Your task to perform on an android device: Open privacy settings Image 0: 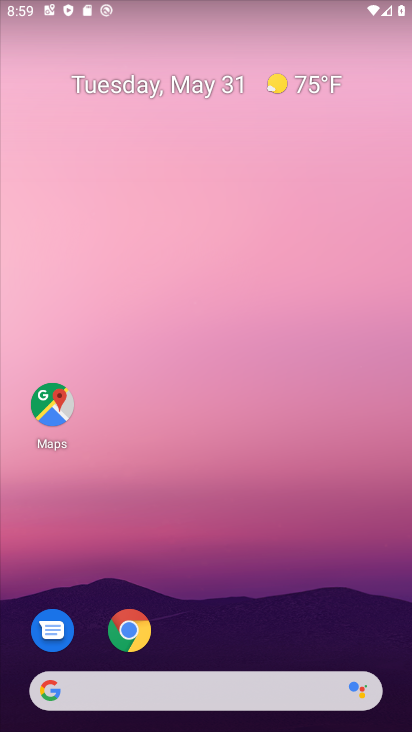
Step 0: drag from (202, 613) to (193, 162)
Your task to perform on an android device: Open privacy settings Image 1: 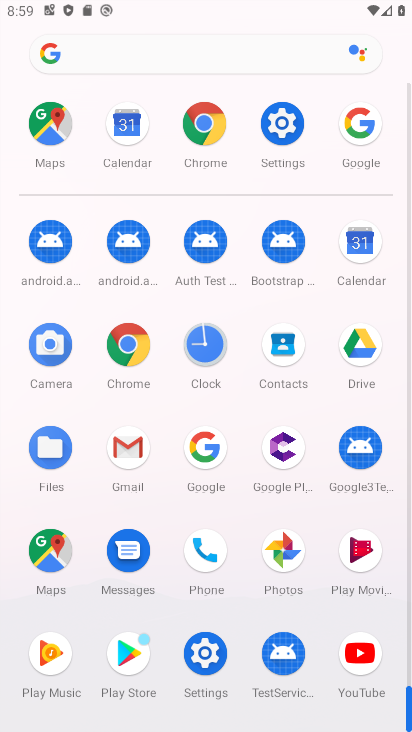
Step 1: click (288, 149)
Your task to perform on an android device: Open privacy settings Image 2: 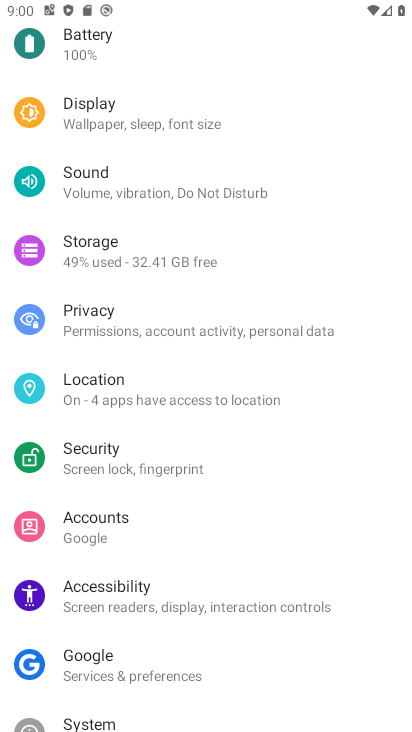
Step 2: click (136, 313)
Your task to perform on an android device: Open privacy settings Image 3: 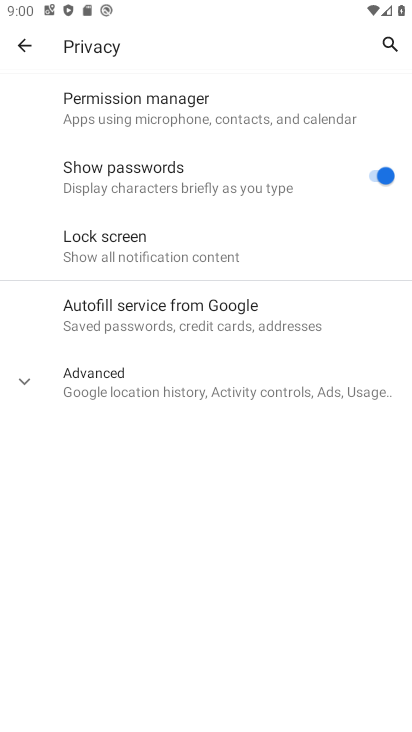
Step 3: task complete